Your task to perform on an android device: change notifications settings Image 0: 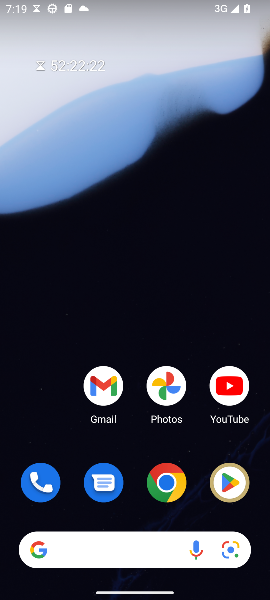
Step 0: drag from (105, 582) to (28, 92)
Your task to perform on an android device: change notifications settings Image 1: 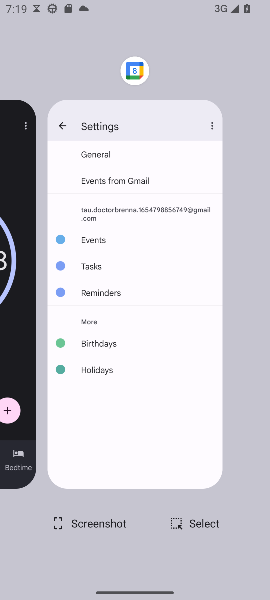
Step 1: press home button
Your task to perform on an android device: change notifications settings Image 2: 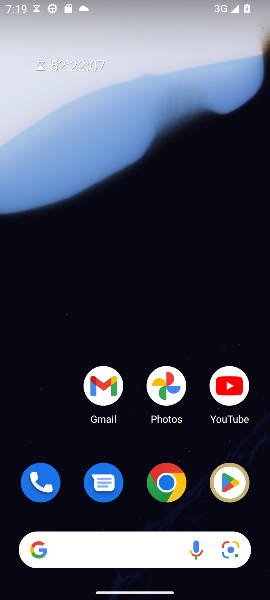
Step 2: drag from (114, 513) to (89, 15)
Your task to perform on an android device: change notifications settings Image 3: 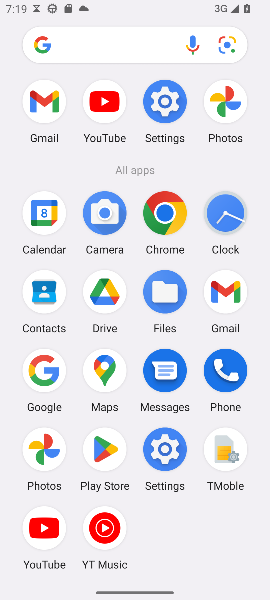
Step 3: click (161, 98)
Your task to perform on an android device: change notifications settings Image 4: 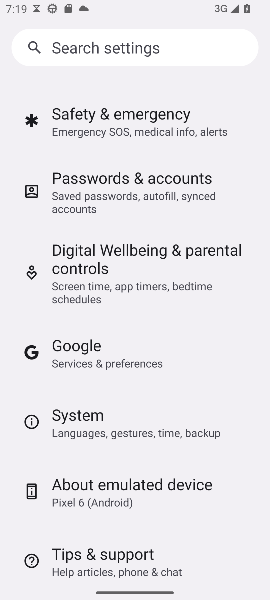
Step 4: drag from (111, 142) to (33, 533)
Your task to perform on an android device: change notifications settings Image 5: 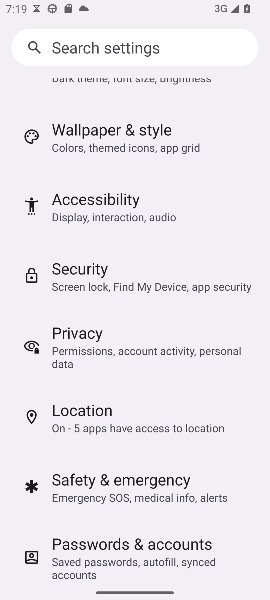
Step 5: drag from (157, 137) to (88, 479)
Your task to perform on an android device: change notifications settings Image 6: 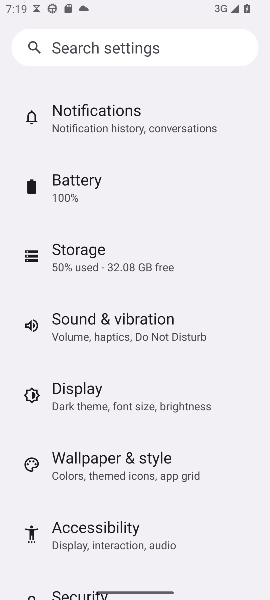
Step 6: click (120, 114)
Your task to perform on an android device: change notifications settings Image 7: 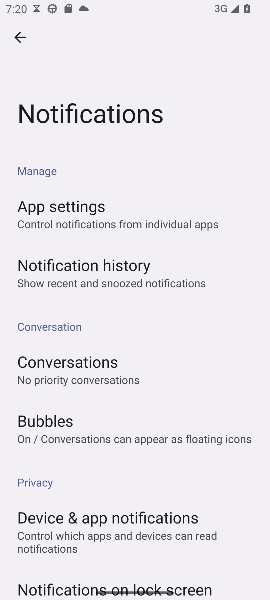
Step 7: drag from (127, 482) to (134, 170)
Your task to perform on an android device: change notifications settings Image 8: 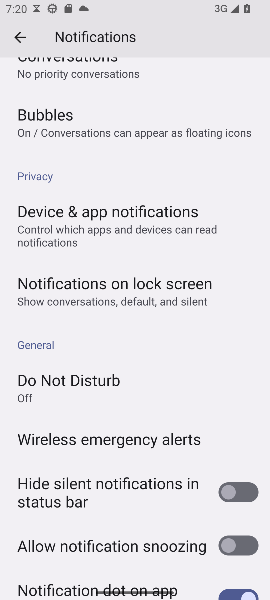
Step 8: drag from (121, 176) to (28, 522)
Your task to perform on an android device: change notifications settings Image 9: 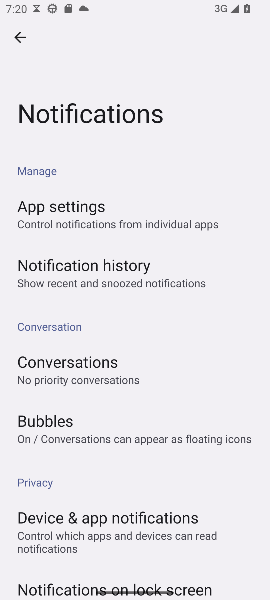
Step 9: click (116, 527)
Your task to perform on an android device: change notifications settings Image 10: 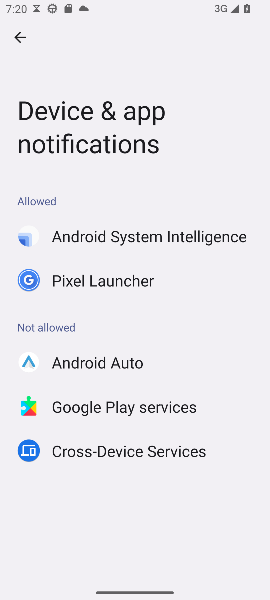
Step 10: task complete